Your task to perform on an android device: change notification settings in the gmail app Image 0: 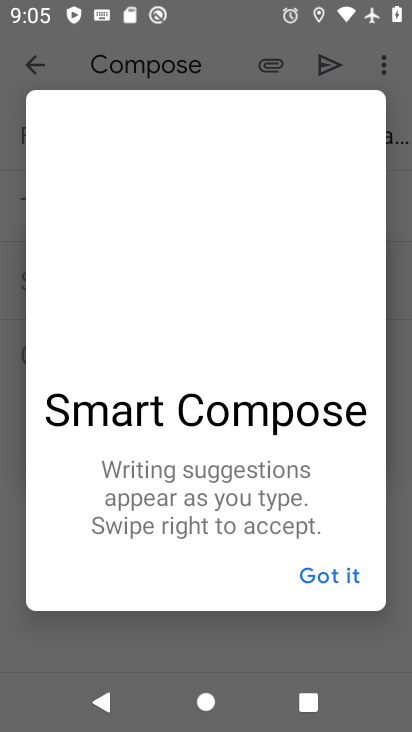
Step 0: press home button
Your task to perform on an android device: change notification settings in the gmail app Image 1: 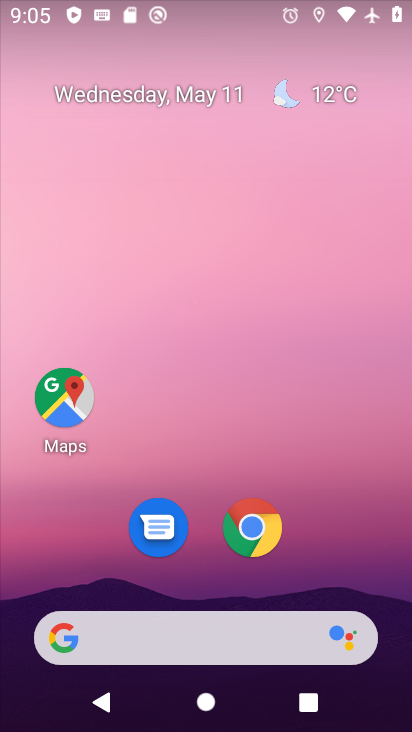
Step 1: drag from (343, 571) to (323, 88)
Your task to perform on an android device: change notification settings in the gmail app Image 2: 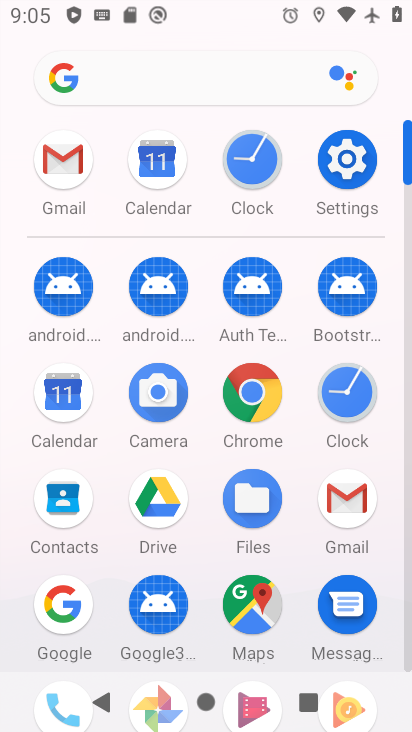
Step 2: click (69, 158)
Your task to perform on an android device: change notification settings in the gmail app Image 3: 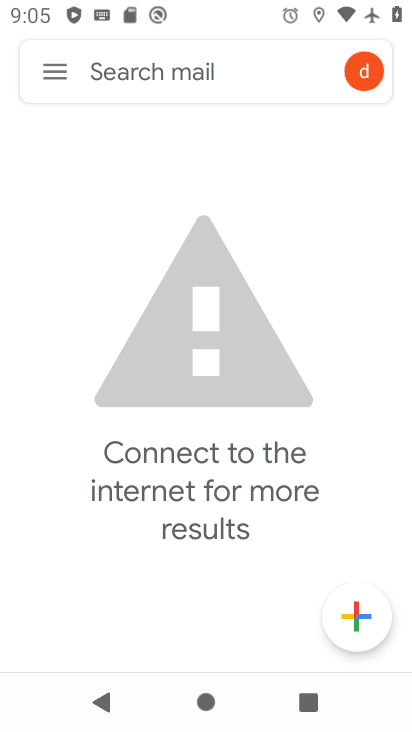
Step 3: click (54, 76)
Your task to perform on an android device: change notification settings in the gmail app Image 4: 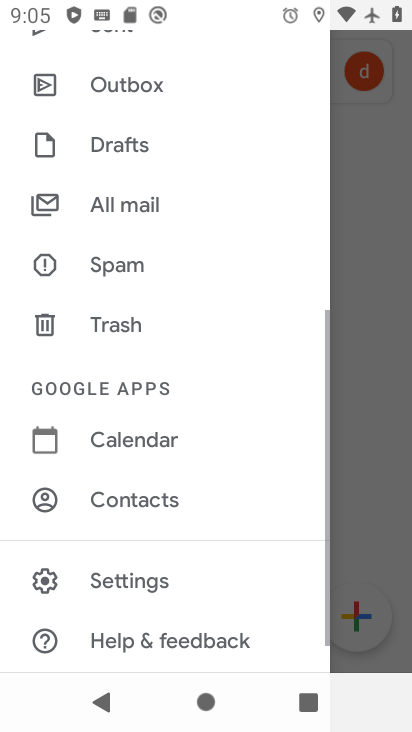
Step 4: click (147, 573)
Your task to perform on an android device: change notification settings in the gmail app Image 5: 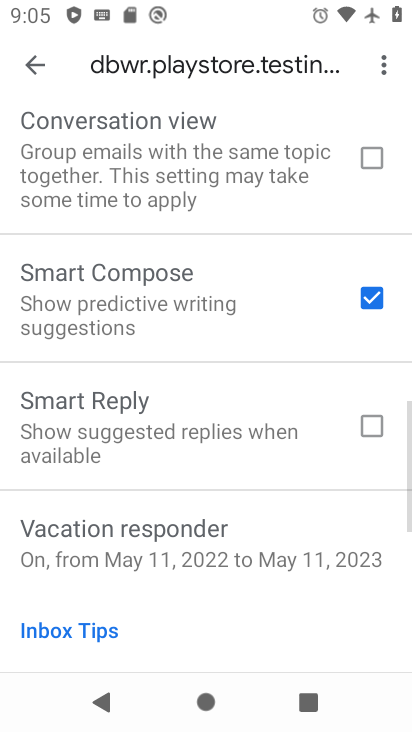
Step 5: drag from (185, 157) to (225, 618)
Your task to perform on an android device: change notification settings in the gmail app Image 6: 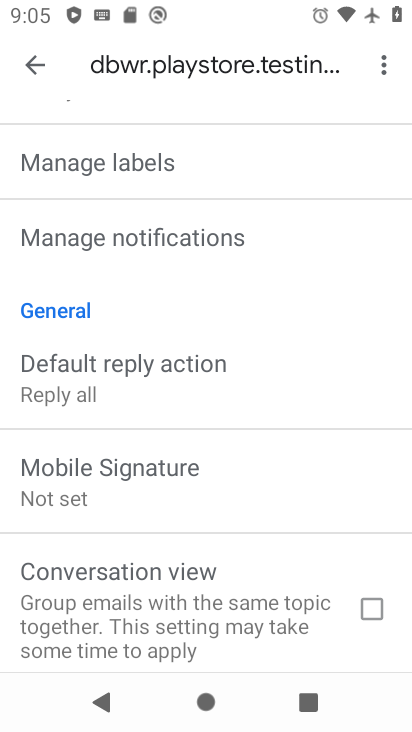
Step 6: drag from (170, 226) to (191, 359)
Your task to perform on an android device: change notification settings in the gmail app Image 7: 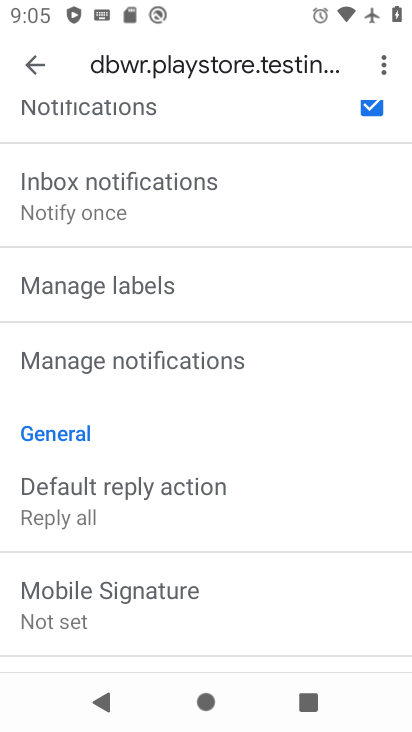
Step 7: click (192, 352)
Your task to perform on an android device: change notification settings in the gmail app Image 8: 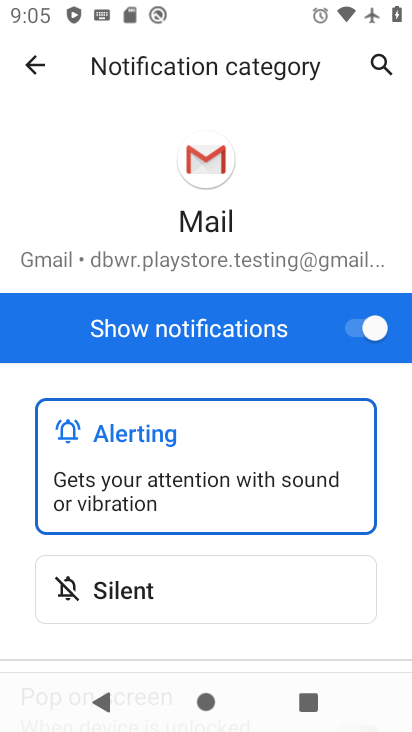
Step 8: click (358, 324)
Your task to perform on an android device: change notification settings in the gmail app Image 9: 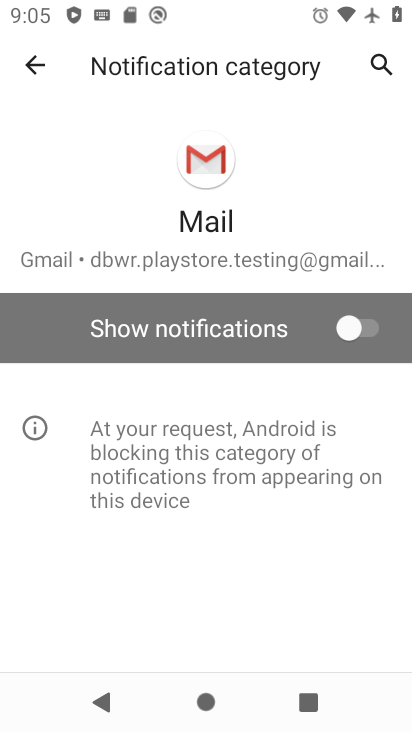
Step 9: task complete